Your task to perform on an android device: turn pop-ups on in chrome Image 0: 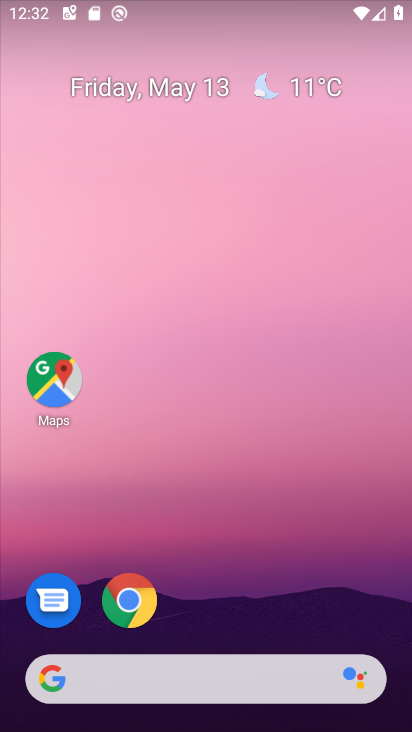
Step 0: click (147, 616)
Your task to perform on an android device: turn pop-ups on in chrome Image 1: 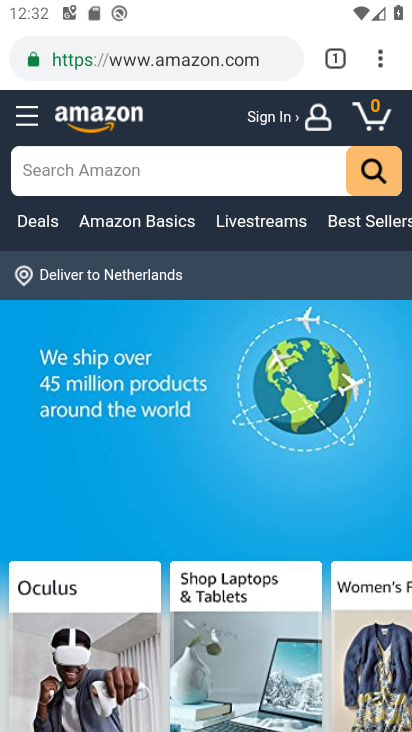
Step 1: click (381, 53)
Your task to perform on an android device: turn pop-ups on in chrome Image 2: 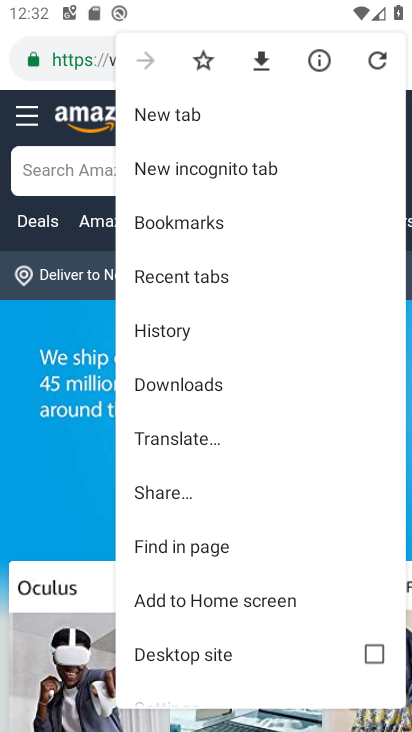
Step 2: drag from (187, 628) to (220, 397)
Your task to perform on an android device: turn pop-ups on in chrome Image 3: 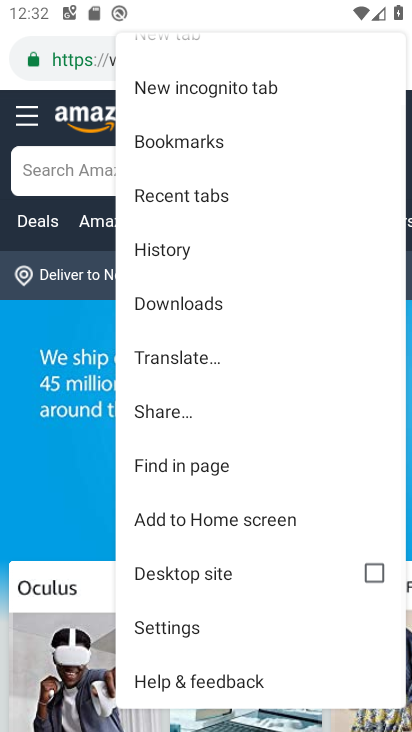
Step 3: click (177, 627)
Your task to perform on an android device: turn pop-ups on in chrome Image 4: 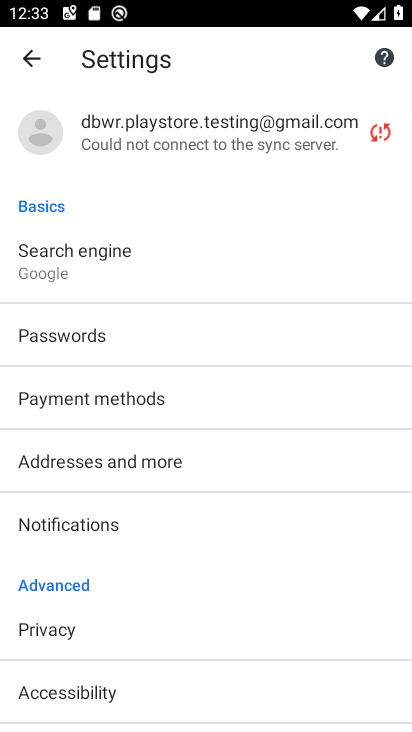
Step 4: drag from (133, 646) to (184, 336)
Your task to perform on an android device: turn pop-ups on in chrome Image 5: 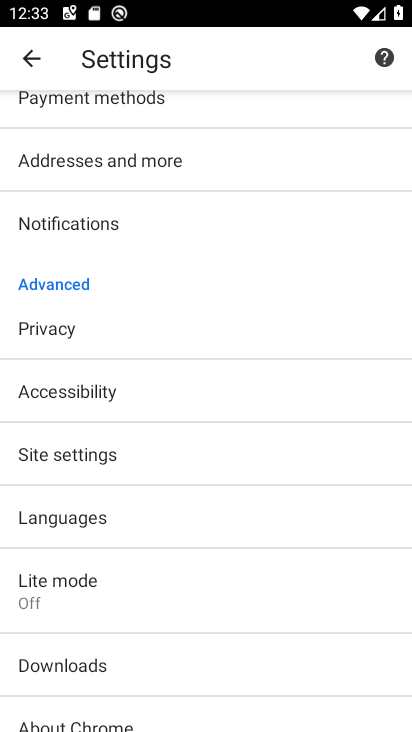
Step 5: click (152, 461)
Your task to perform on an android device: turn pop-ups on in chrome Image 6: 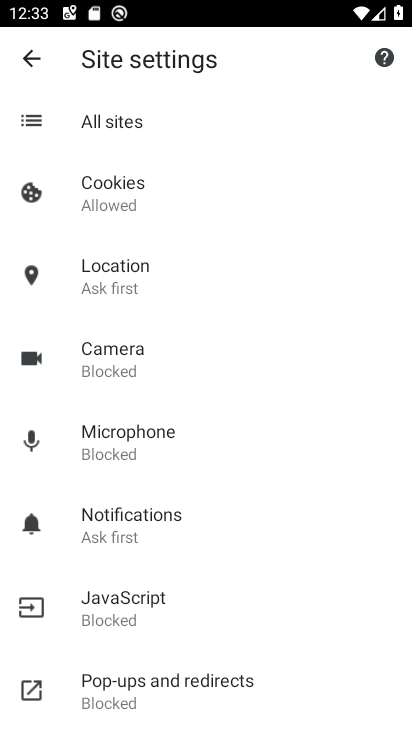
Step 6: click (144, 692)
Your task to perform on an android device: turn pop-ups on in chrome Image 7: 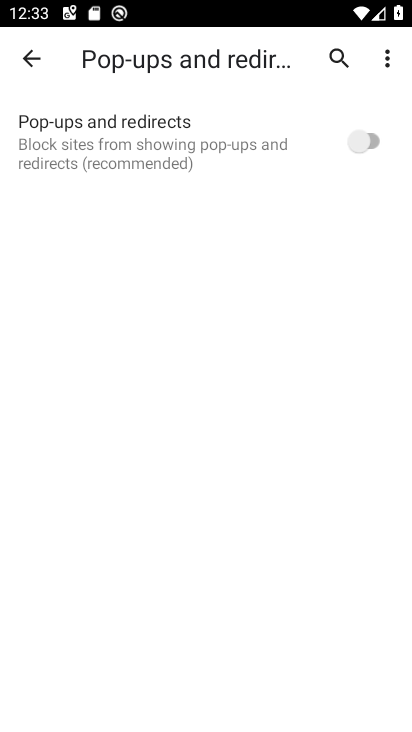
Step 7: click (363, 138)
Your task to perform on an android device: turn pop-ups on in chrome Image 8: 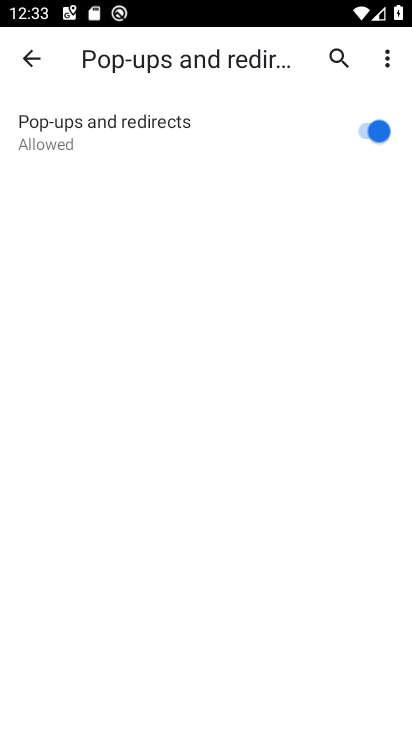
Step 8: task complete